Your task to perform on an android device: What's the weather today? Image 0: 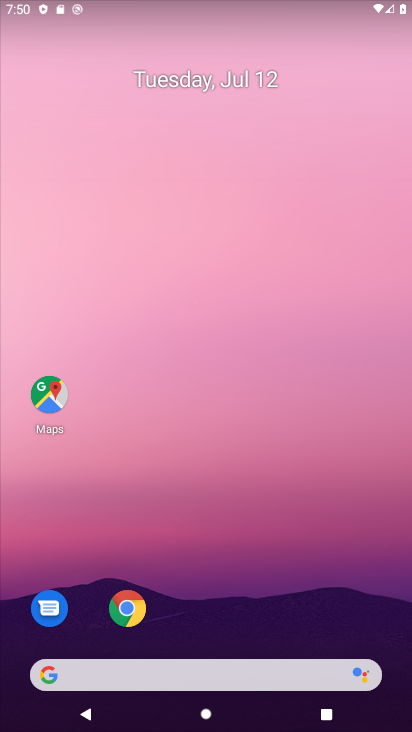
Step 0: drag from (199, 689) to (348, 196)
Your task to perform on an android device: What's the weather today? Image 1: 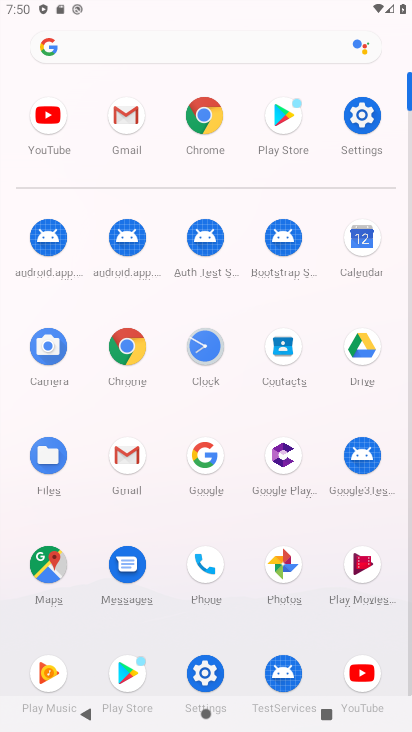
Step 1: click (196, 461)
Your task to perform on an android device: What's the weather today? Image 2: 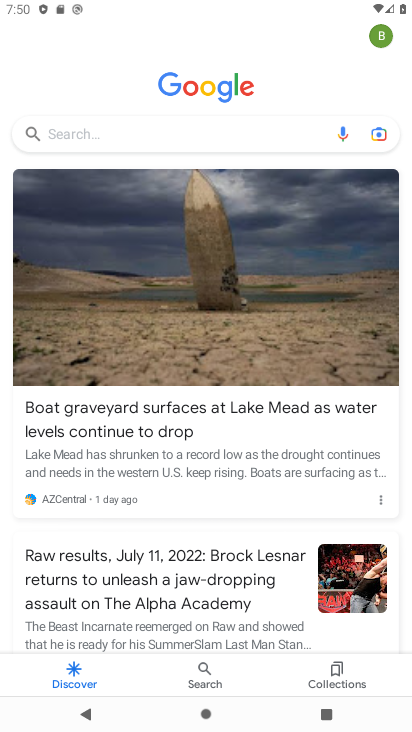
Step 2: drag from (232, 161) to (123, 543)
Your task to perform on an android device: What's the weather today? Image 3: 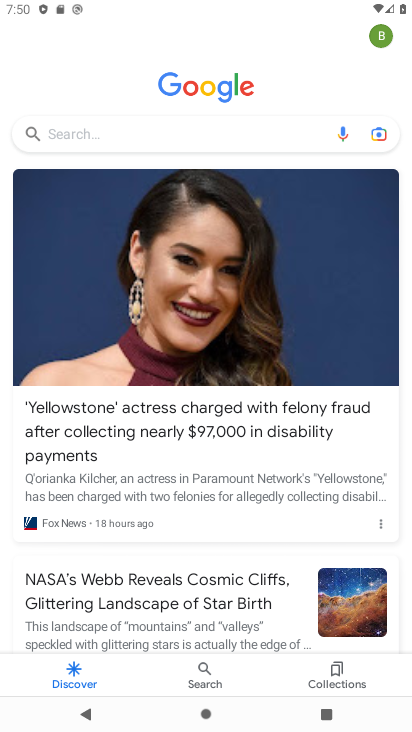
Step 3: click (227, 138)
Your task to perform on an android device: What's the weather today? Image 4: 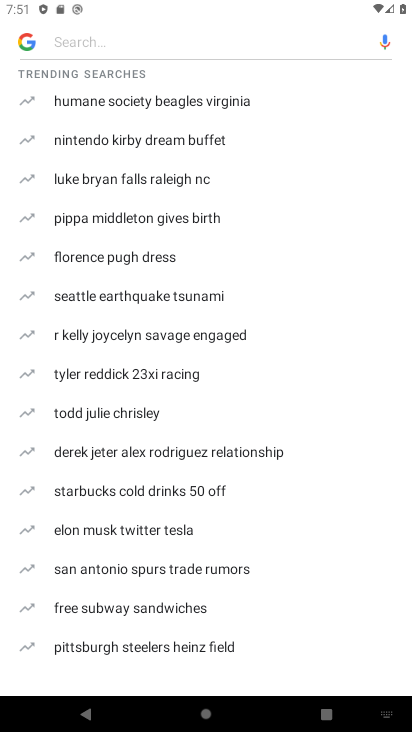
Step 4: type "weather"
Your task to perform on an android device: What's the weather today? Image 5: 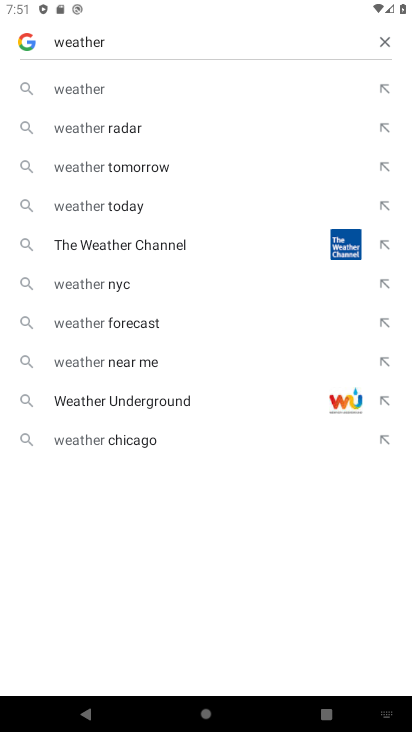
Step 5: click (83, 91)
Your task to perform on an android device: What's the weather today? Image 6: 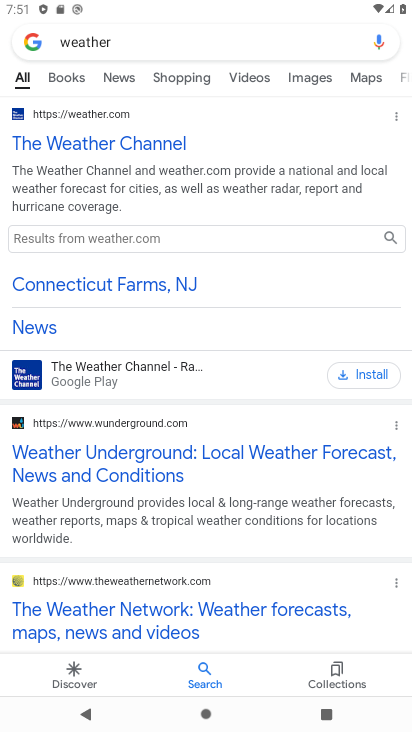
Step 6: drag from (398, 78) to (198, 82)
Your task to perform on an android device: What's the weather today? Image 7: 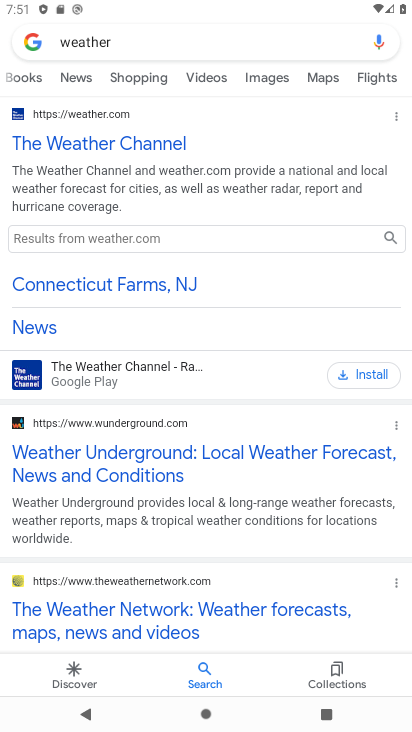
Step 7: drag from (372, 76) to (130, 97)
Your task to perform on an android device: What's the weather today? Image 8: 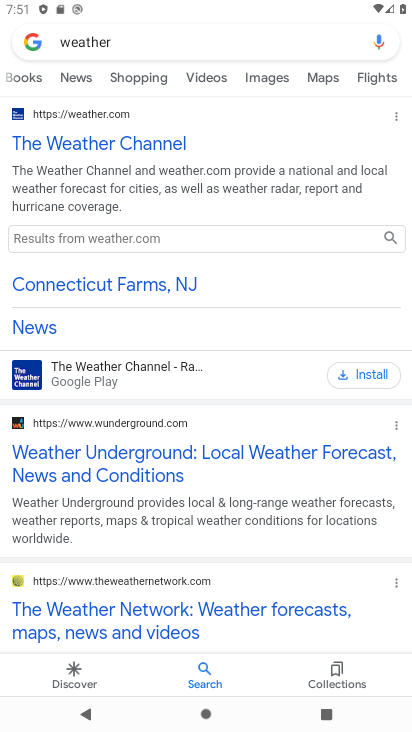
Step 8: click (154, 580)
Your task to perform on an android device: What's the weather today? Image 9: 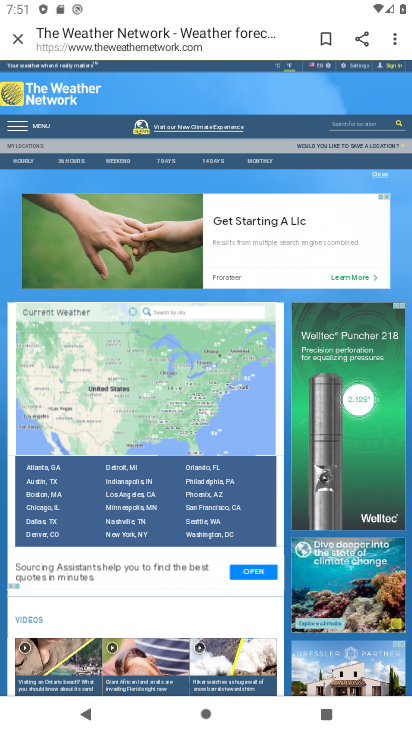
Step 9: task complete